Your task to perform on an android device: Go to Google maps Image 0: 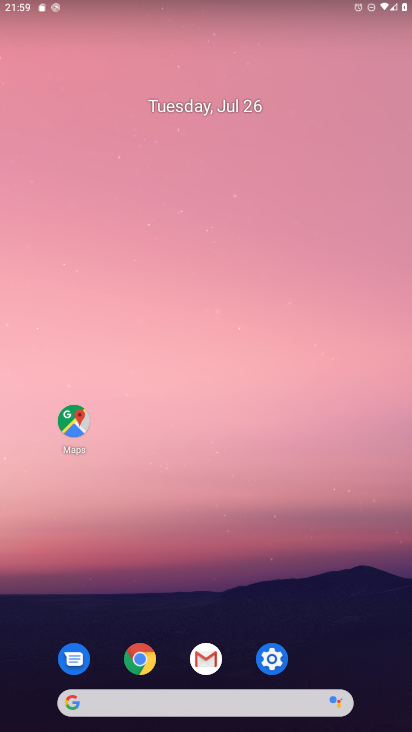
Step 0: click (67, 427)
Your task to perform on an android device: Go to Google maps Image 1: 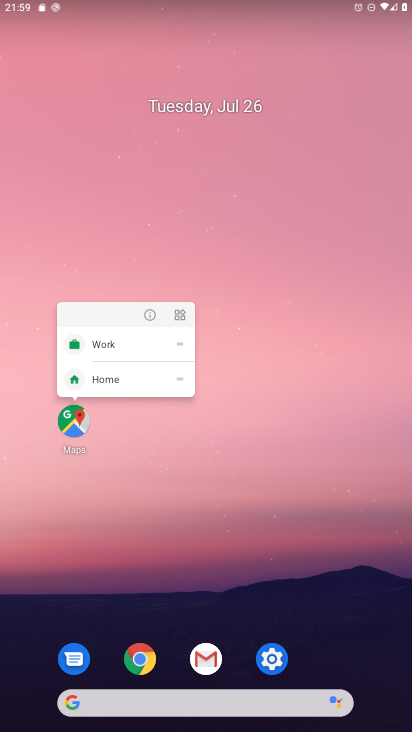
Step 1: click (66, 427)
Your task to perform on an android device: Go to Google maps Image 2: 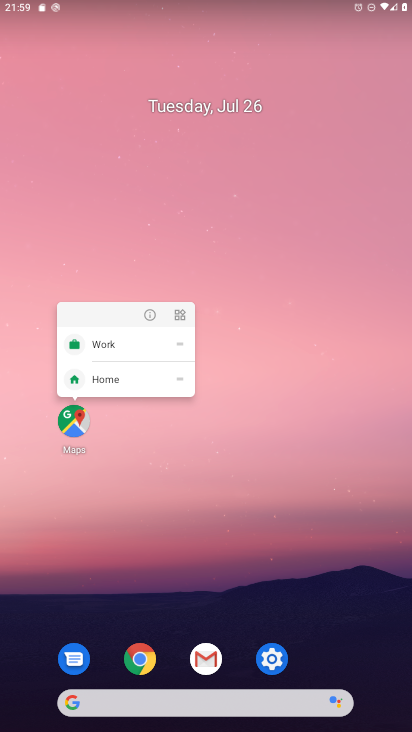
Step 2: click (66, 427)
Your task to perform on an android device: Go to Google maps Image 3: 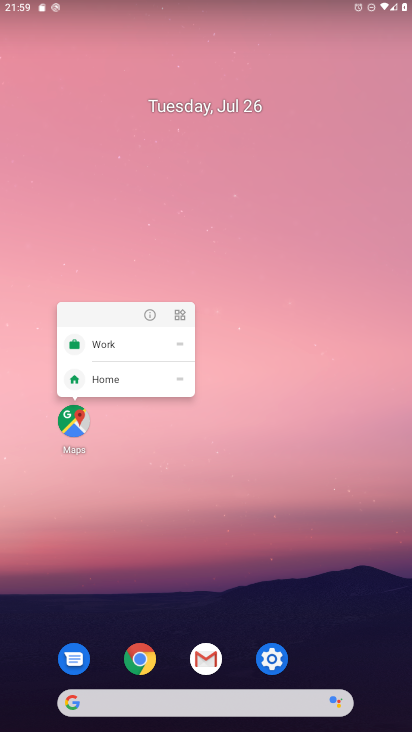
Step 3: click (66, 427)
Your task to perform on an android device: Go to Google maps Image 4: 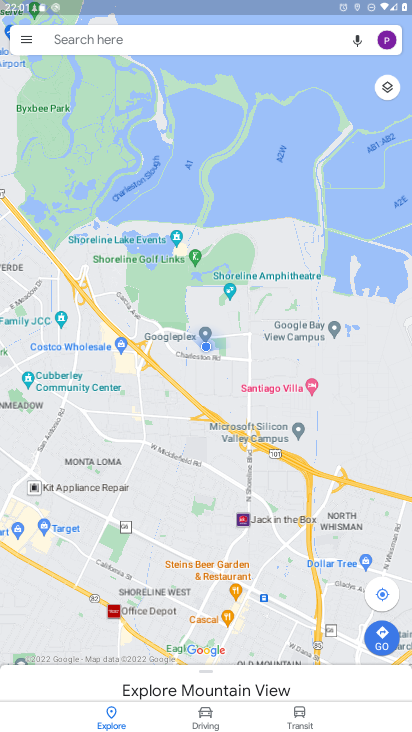
Step 4: task complete